Your task to perform on an android device: change text size in settings app Image 0: 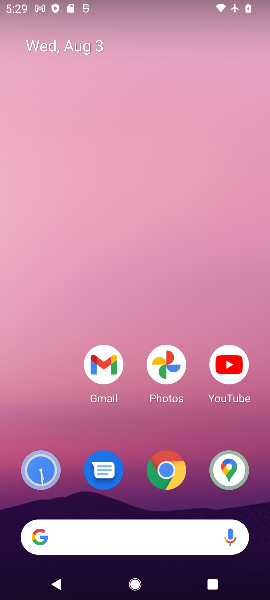
Step 0: drag from (54, 405) to (115, 99)
Your task to perform on an android device: change text size in settings app Image 1: 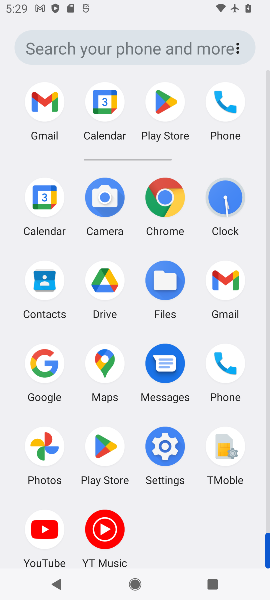
Step 1: click (166, 440)
Your task to perform on an android device: change text size in settings app Image 2: 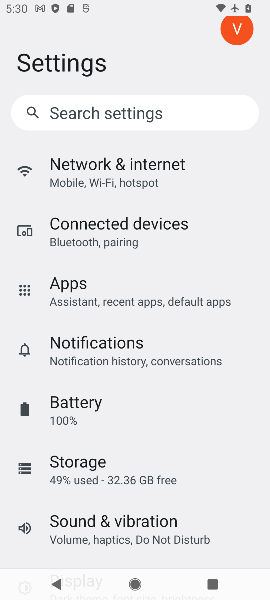
Step 2: drag from (204, 429) to (205, 160)
Your task to perform on an android device: change text size in settings app Image 3: 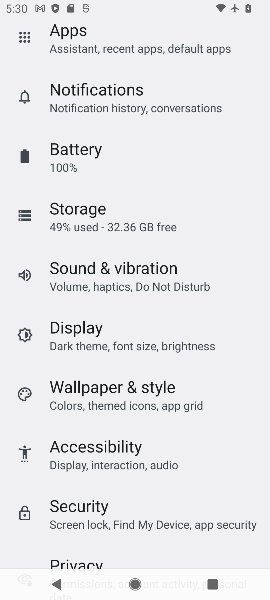
Step 3: click (86, 328)
Your task to perform on an android device: change text size in settings app Image 4: 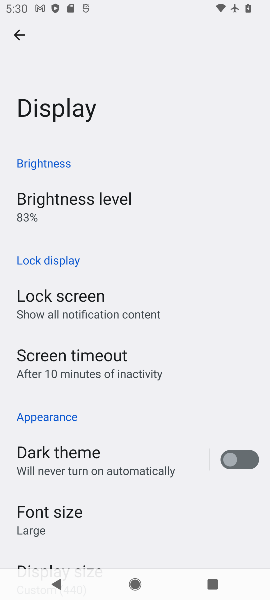
Step 4: click (73, 503)
Your task to perform on an android device: change text size in settings app Image 5: 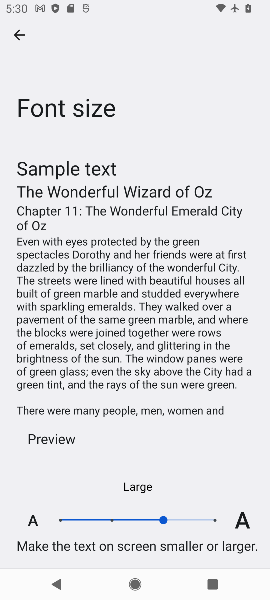
Step 5: click (92, 513)
Your task to perform on an android device: change text size in settings app Image 6: 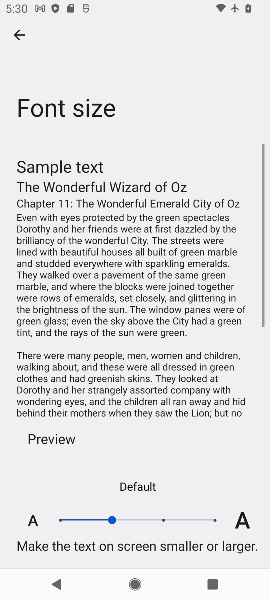
Step 6: task complete